Your task to perform on an android device: Set the phone to "Do not disturb". Image 0: 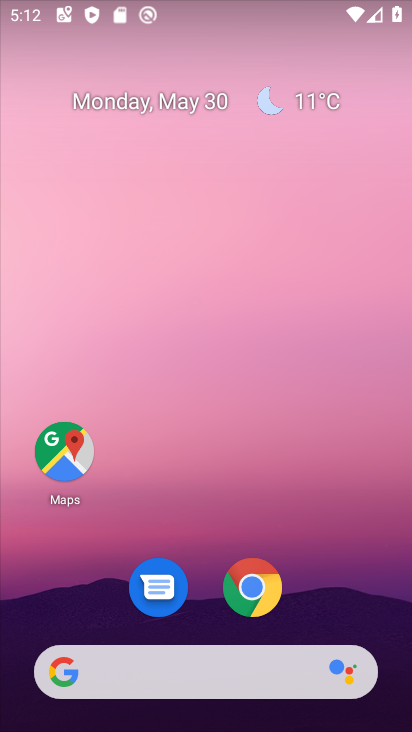
Step 0: drag from (356, 607) to (258, 52)
Your task to perform on an android device: Set the phone to "Do not disturb". Image 1: 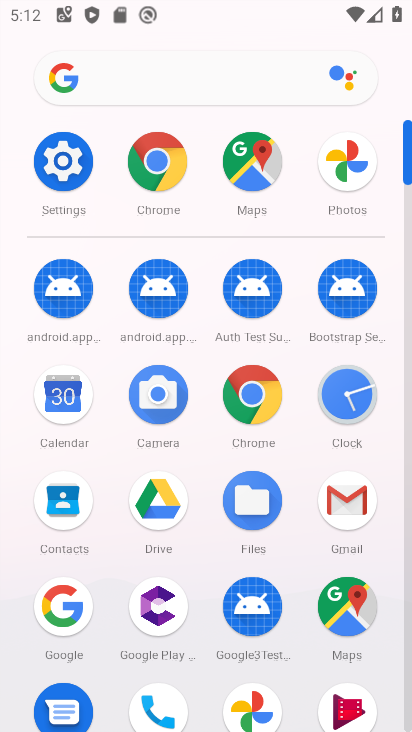
Step 1: drag from (22, 602) to (21, 262)
Your task to perform on an android device: Set the phone to "Do not disturb". Image 2: 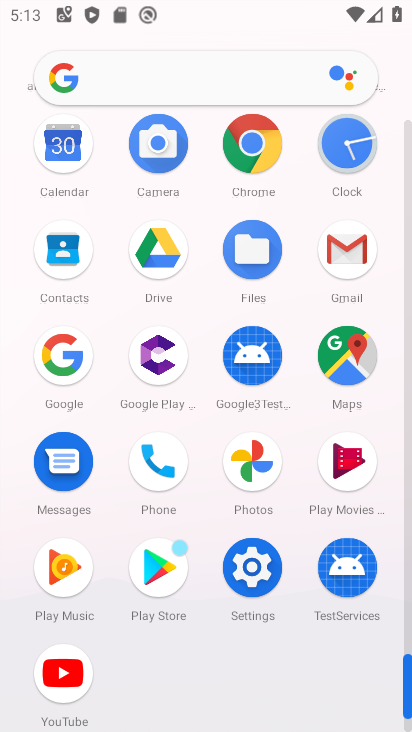
Step 2: click (246, 564)
Your task to perform on an android device: Set the phone to "Do not disturb". Image 3: 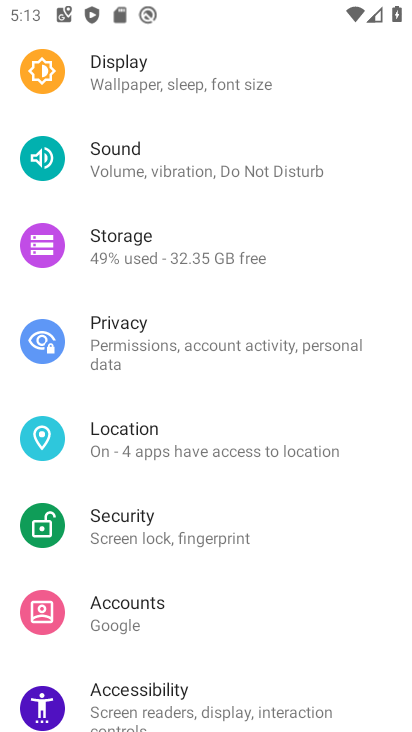
Step 3: drag from (296, 528) to (319, 112)
Your task to perform on an android device: Set the phone to "Do not disturb". Image 4: 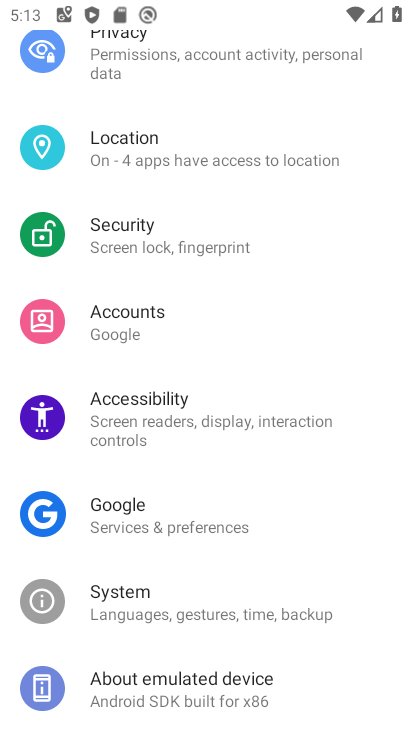
Step 4: drag from (316, 116) to (278, 576)
Your task to perform on an android device: Set the phone to "Do not disturb". Image 5: 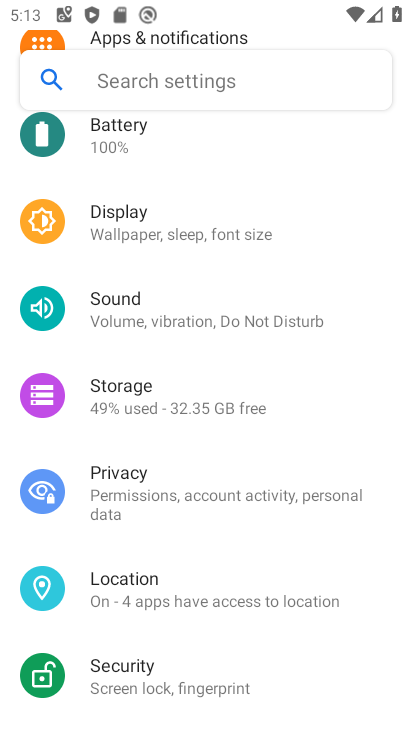
Step 5: drag from (231, 219) to (255, 507)
Your task to perform on an android device: Set the phone to "Do not disturb". Image 6: 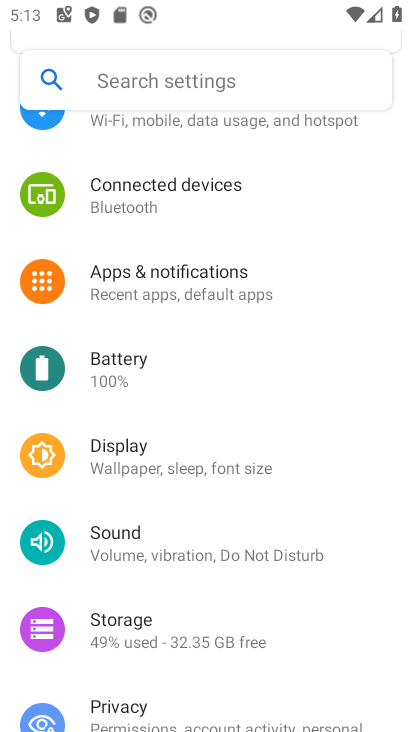
Step 6: click (223, 542)
Your task to perform on an android device: Set the phone to "Do not disturb". Image 7: 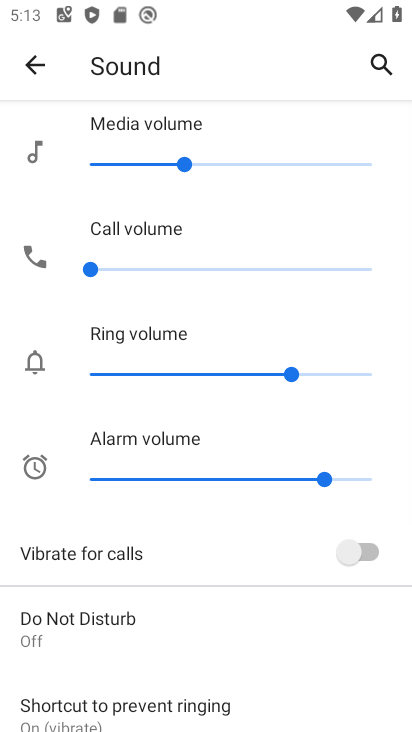
Step 7: click (193, 630)
Your task to perform on an android device: Set the phone to "Do not disturb". Image 8: 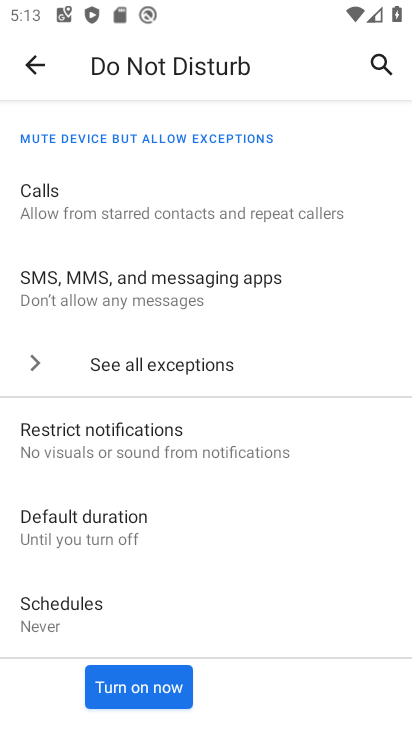
Step 8: click (147, 675)
Your task to perform on an android device: Set the phone to "Do not disturb". Image 9: 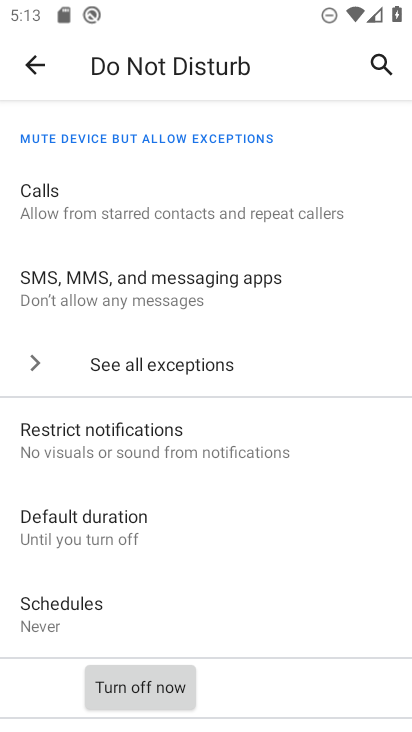
Step 9: task complete